Your task to perform on an android device: Show me the alarms in the clock app Image 0: 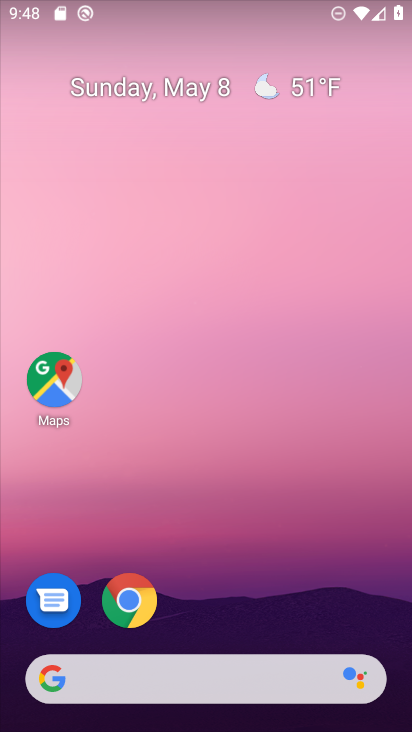
Step 0: drag from (316, 580) to (305, 15)
Your task to perform on an android device: Show me the alarms in the clock app Image 1: 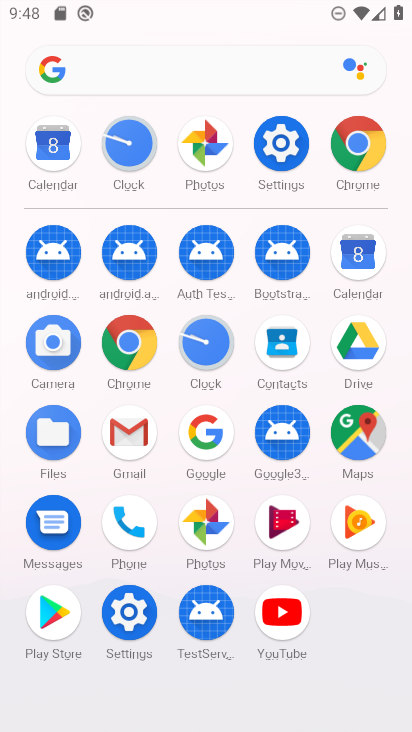
Step 1: click (119, 147)
Your task to perform on an android device: Show me the alarms in the clock app Image 2: 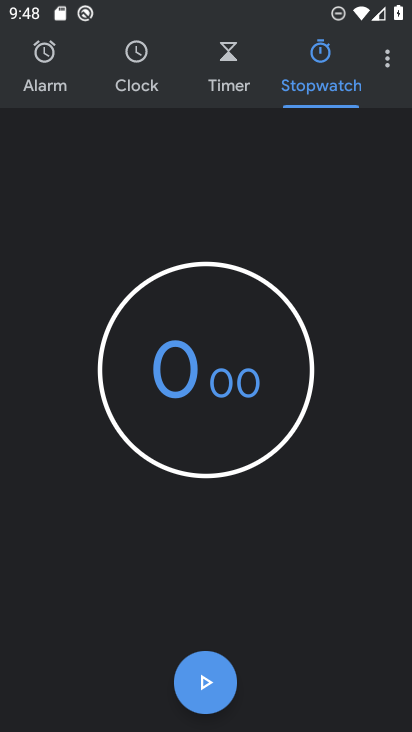
Step 2: click (36, 58)
Your task to perform on an android device: Show me the alarms in the clock app Image 3: 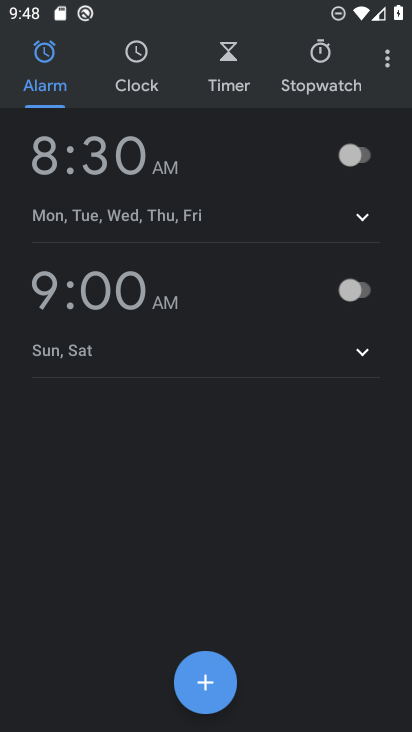
Step 3: task complete